Your task to perform on an android device: Search for sushi restaurants on Maps Image 0: 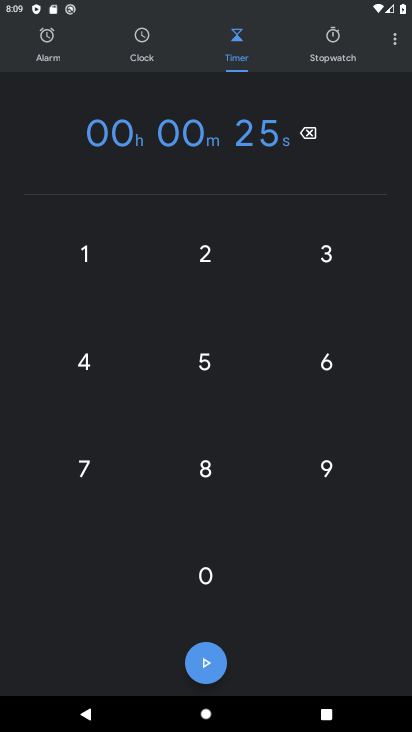
Step 0: press home button
Your task to perform on an android device: Search for sushi restaurants on Maps Image 1: 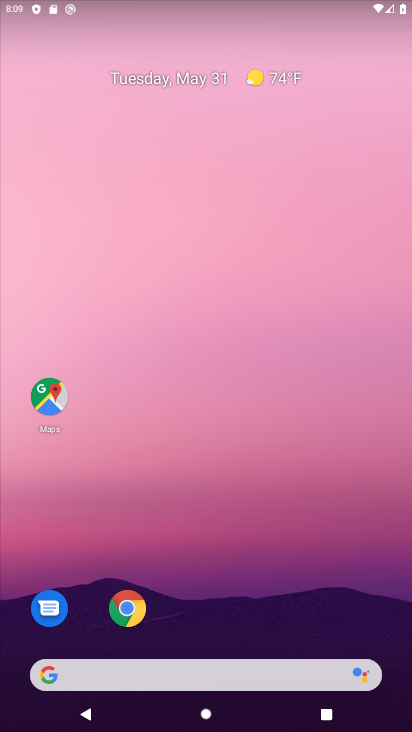
Step 1: click (58, 388)
Your task to perform on an android device: Search for sushi restaurants on Maps Image 2: 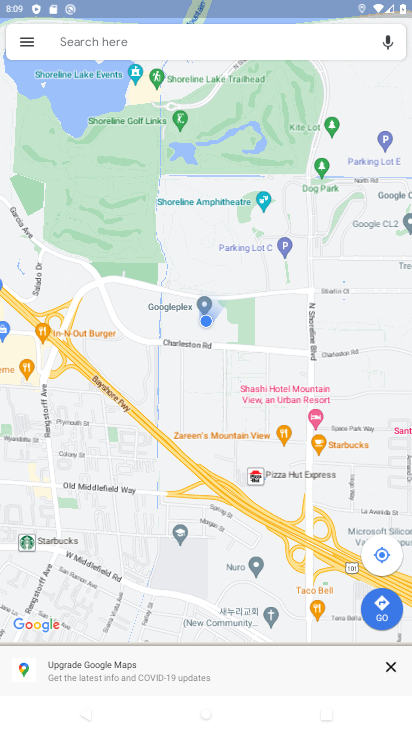
Step 2: click (214, 47)
Your task to perform on an android device: Search for sushi restaurants on Maps Image 3: 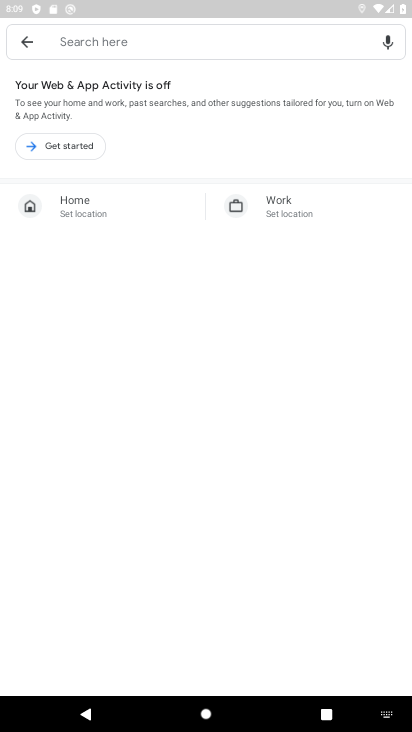
Step 3: click (39, 138)
Your task to perform on an android device: Search for sushi restaurants on Maps Image 4: 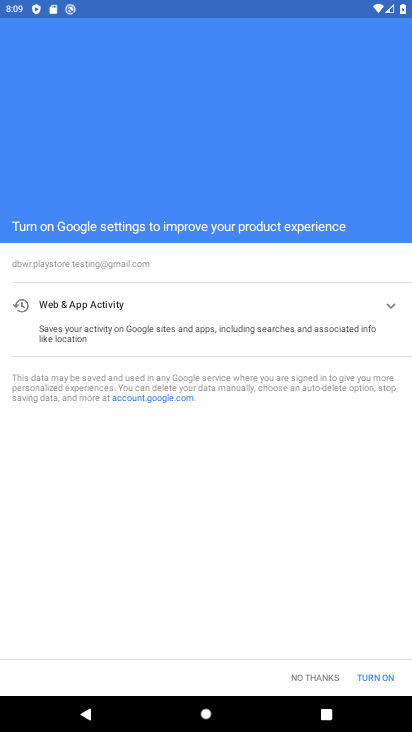
Step 4: click (383, 672)
Your task to perform on an android device: Search for sushi restaurants on Maps Image 5: 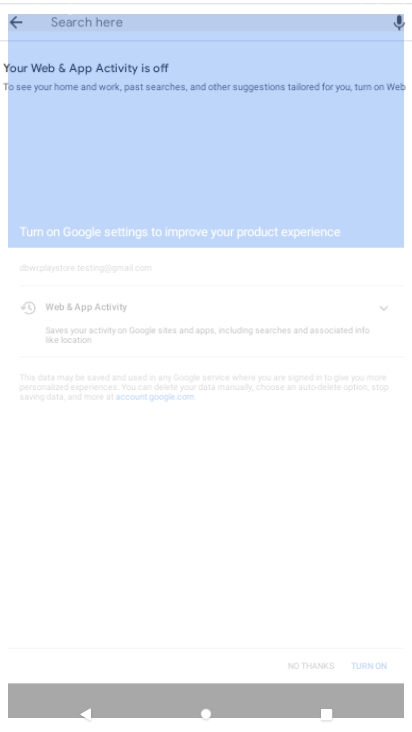
Step 5: click (383, 672)
Your task to perform on an android device: Search for sushi restaurants on Maps Image 6: 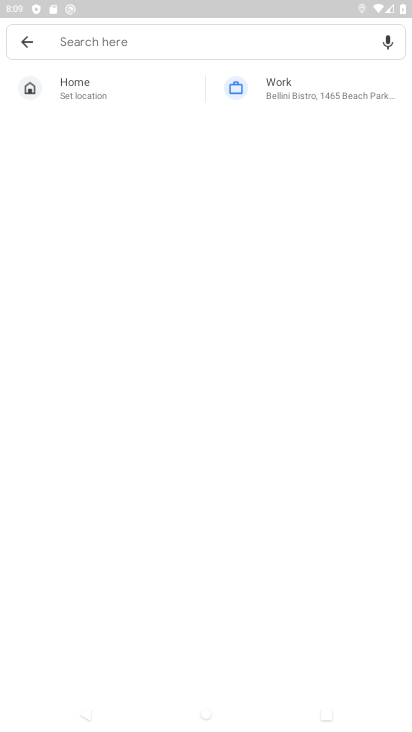
Step 6: click (108, 55)
Your task to perform on an android device: Search for sushi restaurants on Maps Image 7: 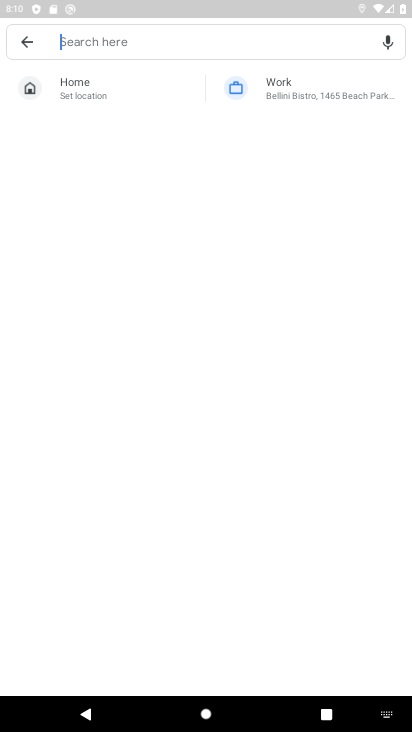
Step 7: type "sushi restuarants"
Your task to perform on an android device: Search for sushi restaurants on Maps Image 8: 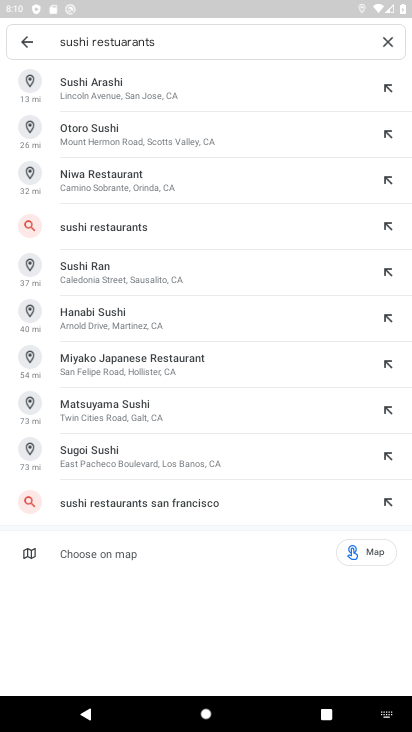
Step 8: click (95, 217)
Your task to perform on an android device: Search for sushi restaurants on Maps Image 9: 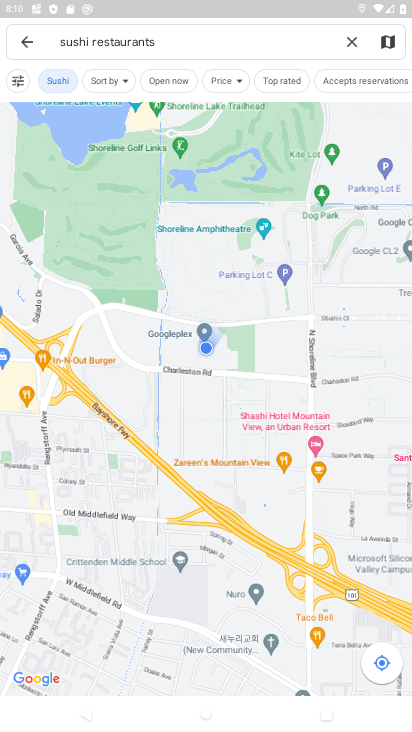
Step 9: task complete